Your task to perform on an android device: change your default location settings in chrome Image 0: 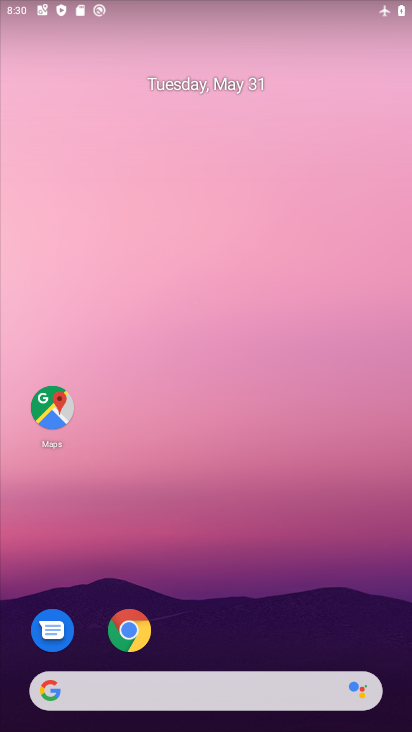
Step 0: drag from (244, 633) to (207, 166)
Your task to perform on an android device: change your default location settings in chrome Image 1: 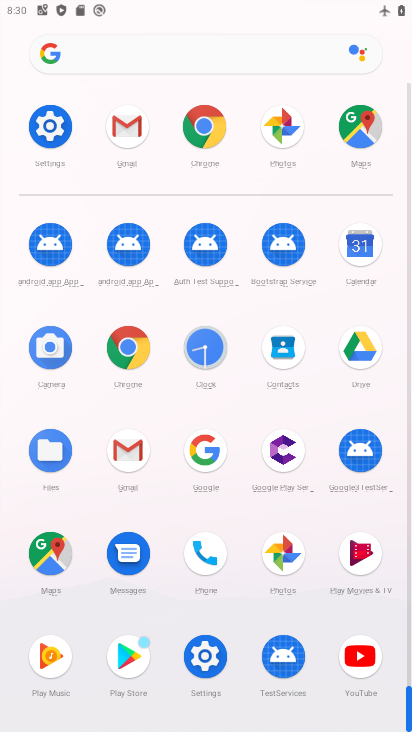
Step 1: click (127, 349)
Your task to perform on an android device: change your default location settings in chrome Image 2: 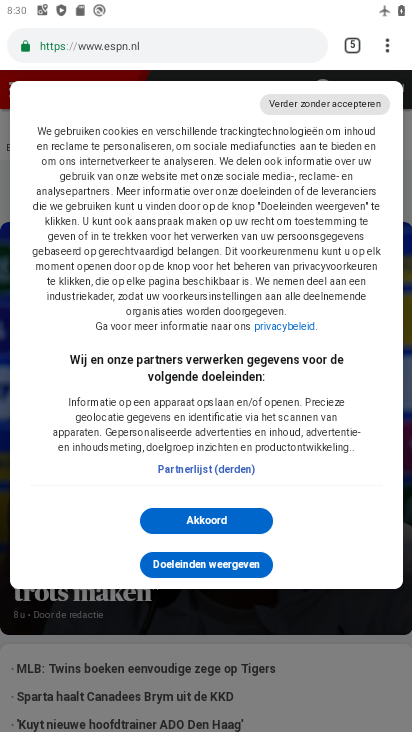
Step 2: click (383, 43)
Your task to perform on an android device: change your default location settings in chrome Image 3: 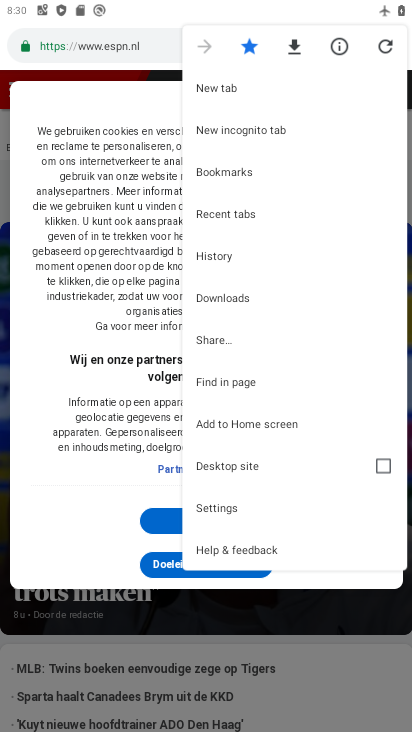
Step 3: click (237, 505)
Your task to perform on an android device: change your default location settings in chrome Image 4: 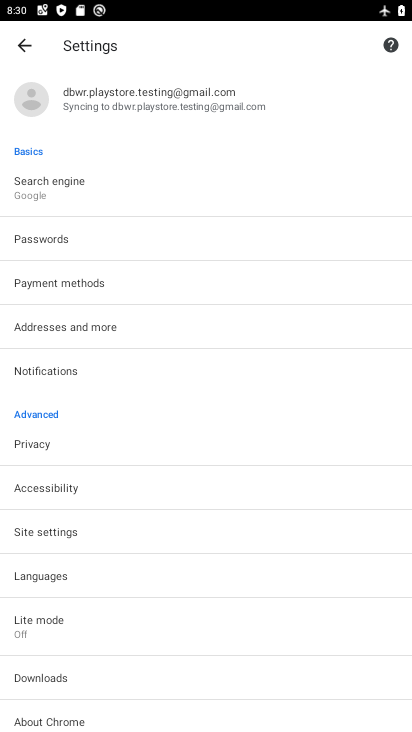
Step 4: click (65, 194)
Your task to perform on an android device: change your default location settings in chrome Image 5: 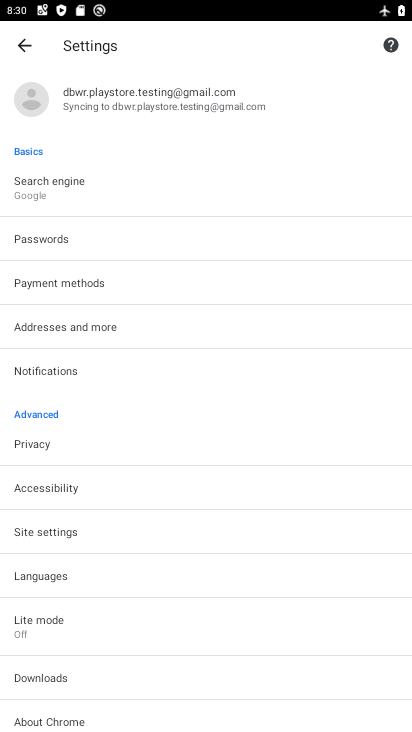
Step 5: click (97, 538)
Your task to perform on an android device: change your default location settings in chrome Image 6: 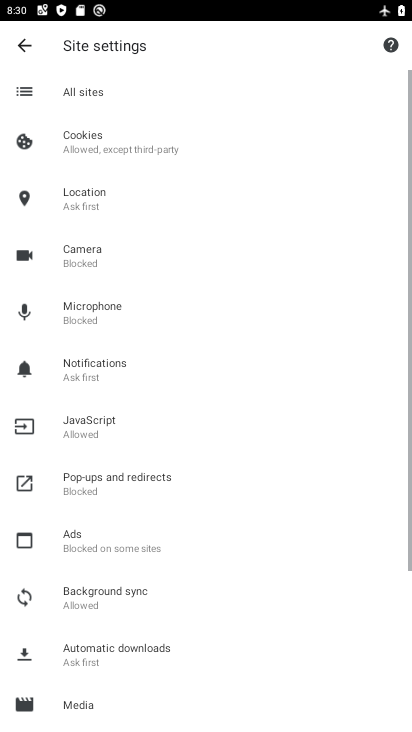
Step 6: click (138, 196)
Your task to perform on an android device: change your default location settings in chrome Image 7: 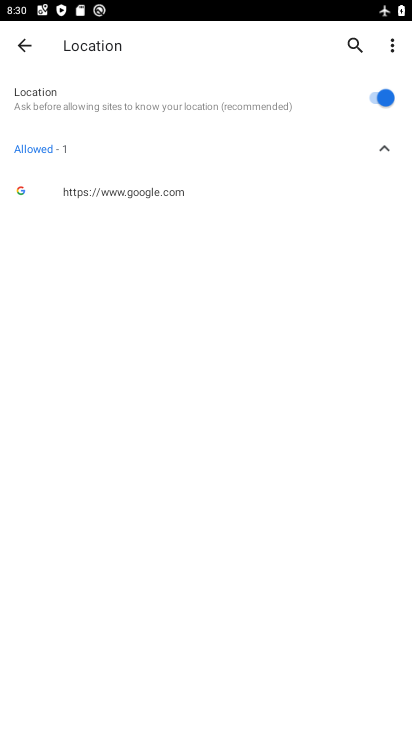
Step 7: click (354, 99)
Your task to perform on an android device: change your default location settings in chrome Image 8: 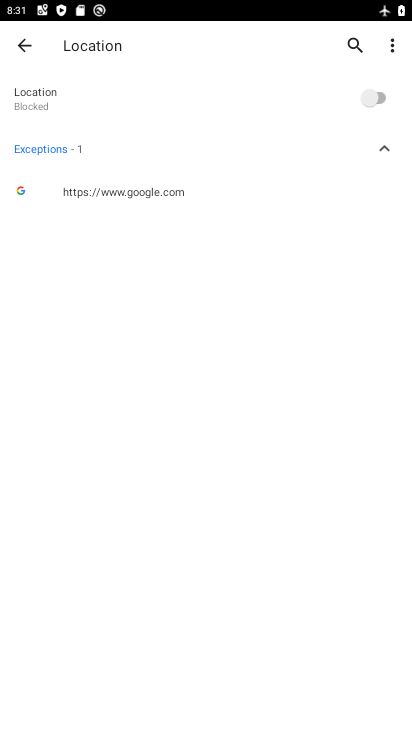
Step 8: task complete